Your task to perform on an android device: Open Google Maps Image 0: 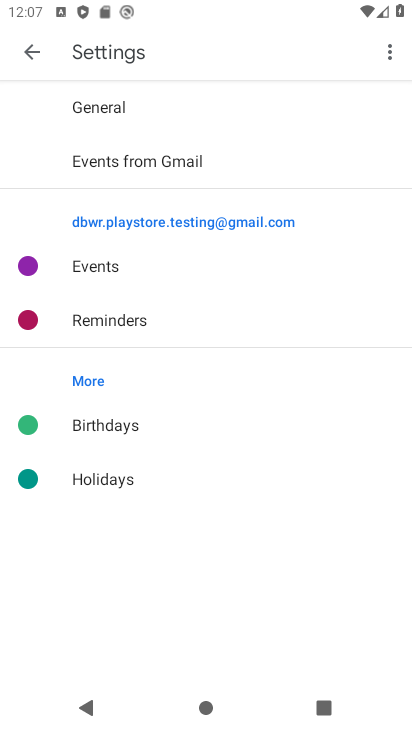
Step 0: press home button
Your task to perform on an android device: Open Google Maps Image 1: 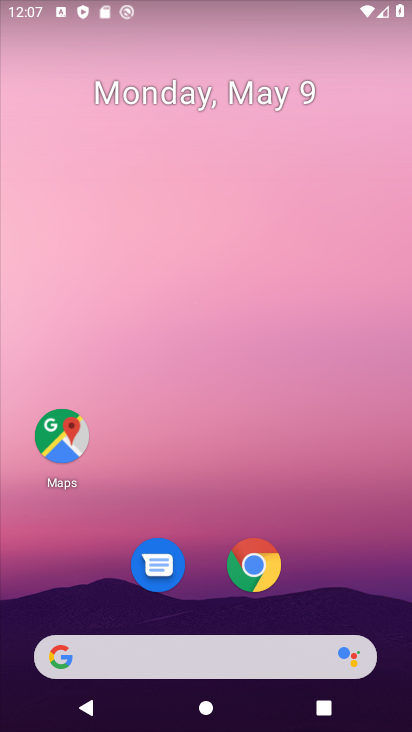
Step 1: drag from (318, 518) to (328, 122)
Your task to perform on an android device: Open Google Maps Image 2: 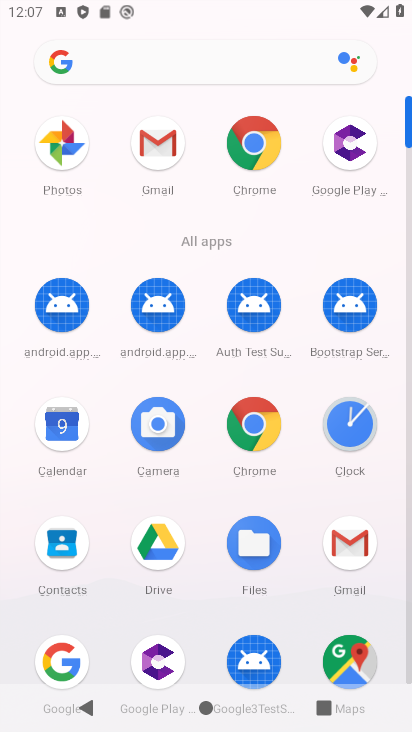
Step 2: click (339, 655)
Your task to perform on an android device: Open Google Maps Image 3: 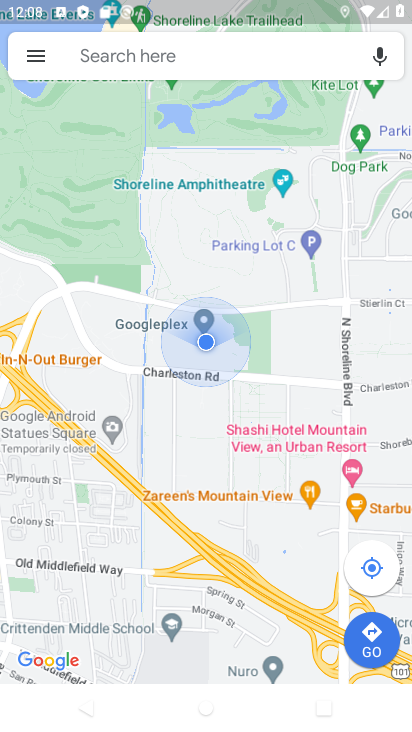
Step 3: task complete